Your task to perform on an android device: Search for the best rated 150-piece drill bit set on Aliexpress. Image 0: 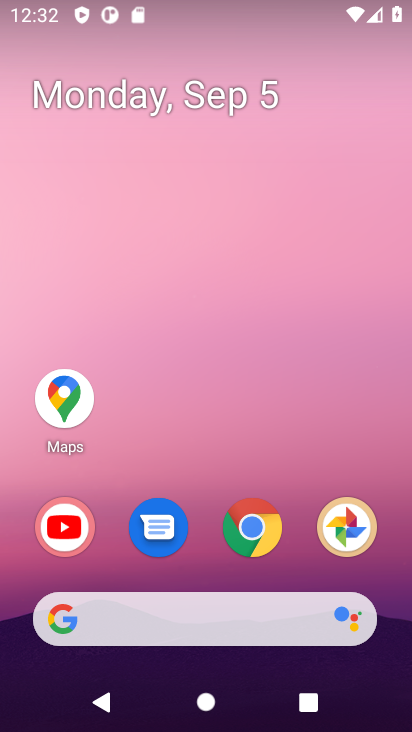
Step 0: click (244, 527)
Your task to perform on an android device: Search for the best rated 150-piece drill bit set on Aliexpress. Image 1: 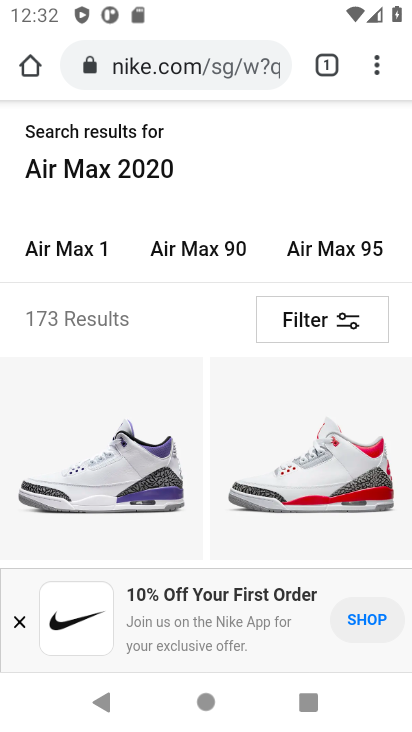
Step 1: click (205, 69)
Your task to perform on an android device: Search for the best rated 150-piece drill bit set on Aliexpress. Image 2: 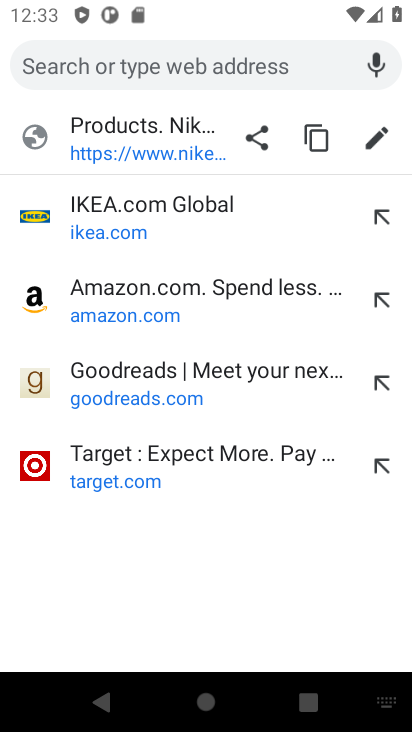
Step 2: type "AliExpress"
Your task to perform on an android device: Search for the best rated 150-piece drill bit set on Aliexpress. Image 3: 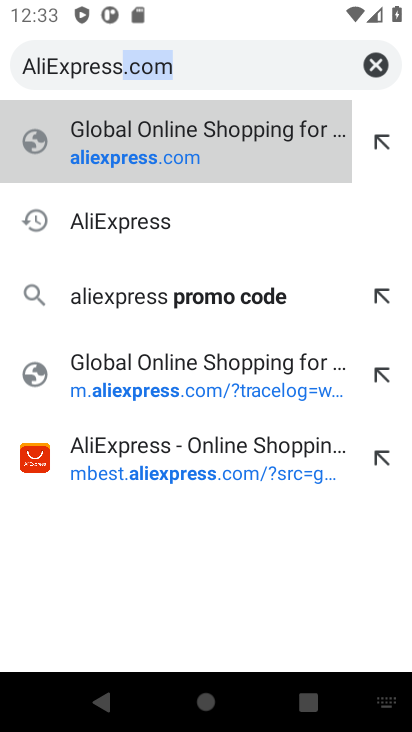
Step 3: click (170, 226)
Your task to perform on an android device: Search for the best rated 150-piece drill bit set on Aliexpress. Image 4: 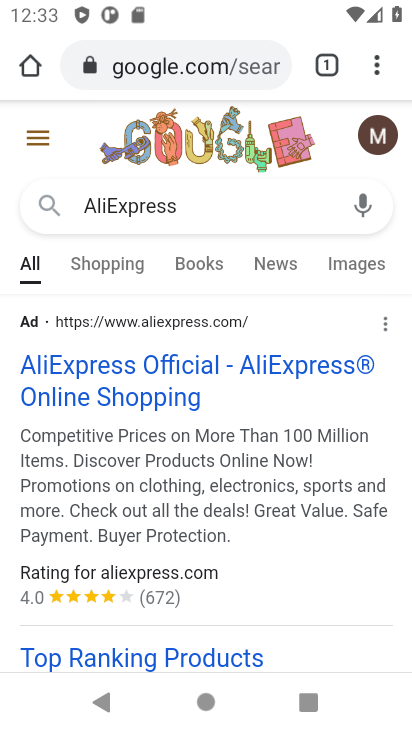
Step 4: click (161, 385)
Your task to perform on an android device: Search for the best rated 150-piece drill bit set on Aliexpress. Image 5: 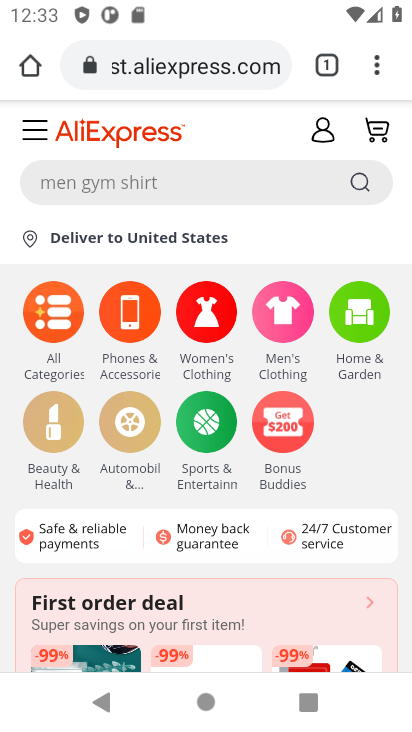
Step 5: click (195, 187)
Your task to perform on an android device: Search for the best rated 150-piece drill bit set on Aliexpress. Image 6: 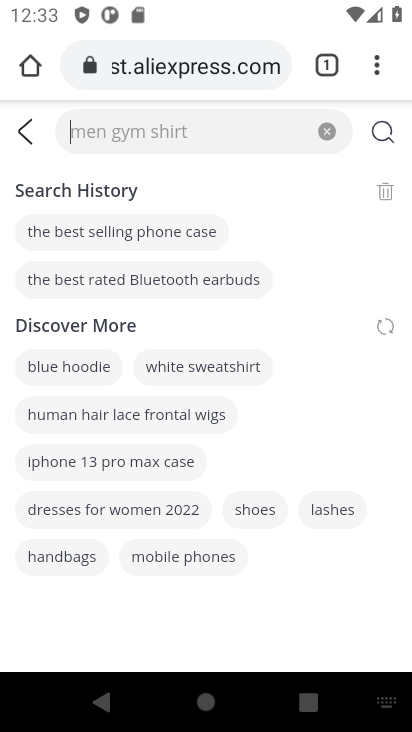
Step 6: type "best rated 150 bit drill bit sets"
Your task to perform on an android device: Search for the best rated 150-piece drill bit set on Aliexpress. Image 7: 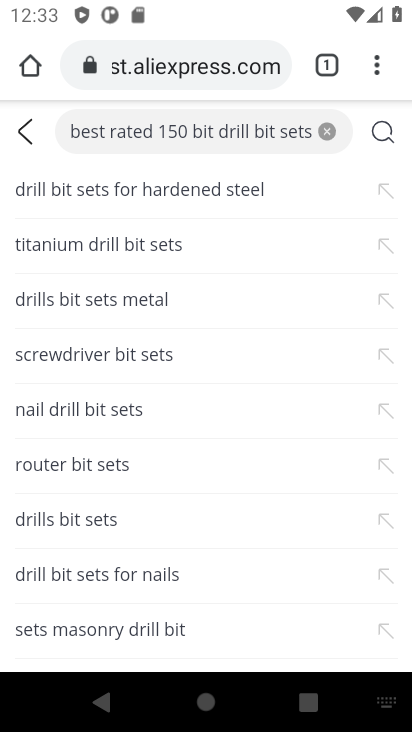
Step 7: click (378, 125)
Your task to perform on an android device: Search for the best rated 150-piece drill bit set on Aliexpress. Image 8: 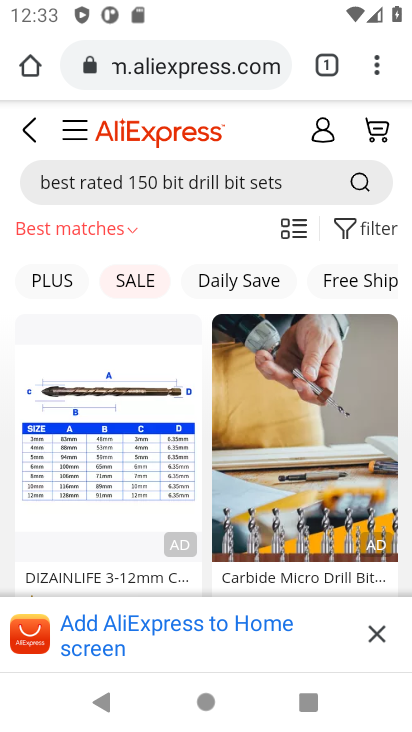
Step 8: task complete